Your task to perform on an android device: turn off location history Image 0: 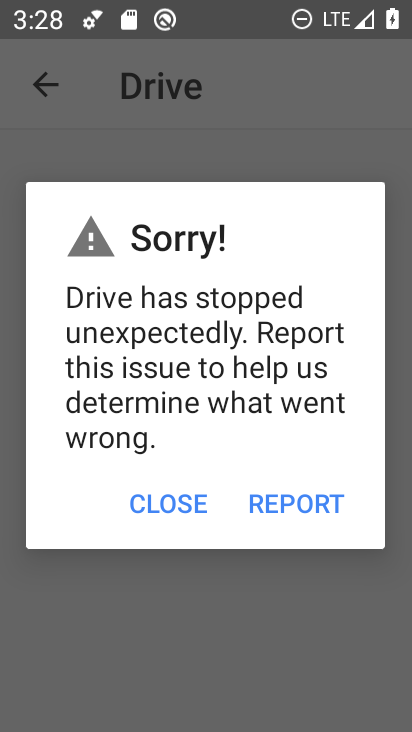
Step 0: press home button
Your task to perform on an android device: turn off location history Image 1: 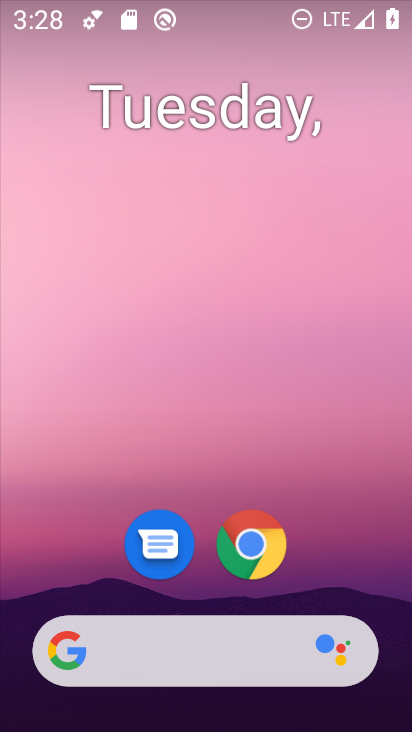
Step 1: drag from (374, 569) to (371, 129)
Your task to perform on an android device: turn off location history Image 2: 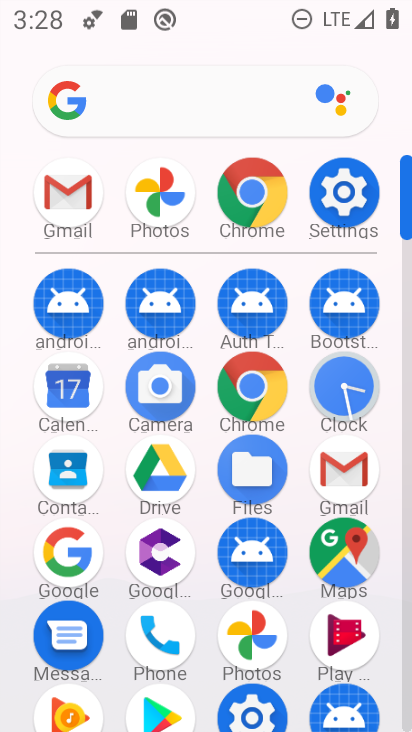
Step 2: click (353, 197)
Your task to perform on an android device: turn off location history Image 3: 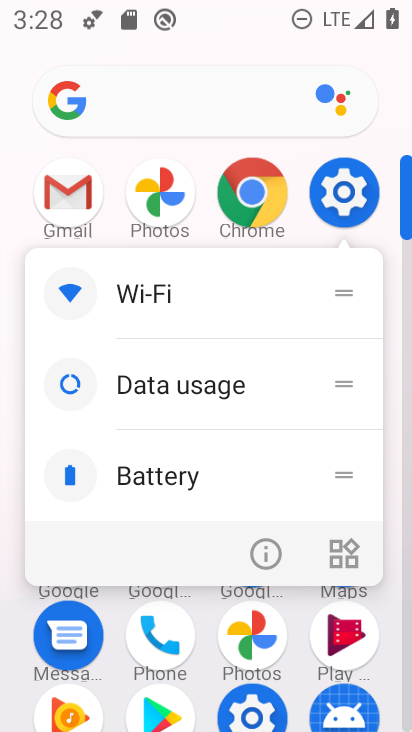
Step 3: click (364, 192)
Your task to perform on an android device: turn off location history Image 4: 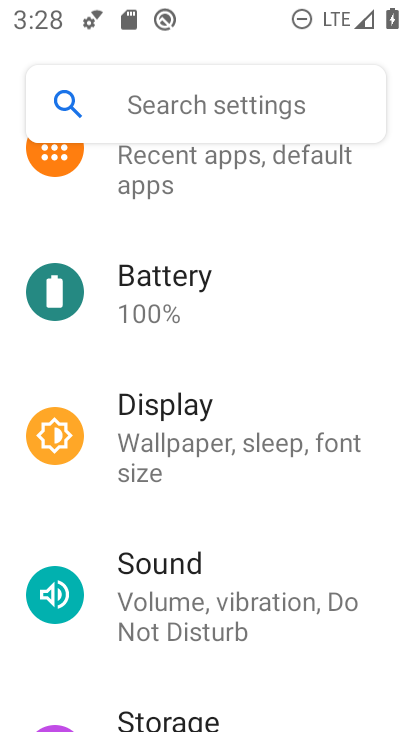
Step 4: drag from (364, 325) to (368, 465)
Your task to perform on an android device: turn off location history Image 5: 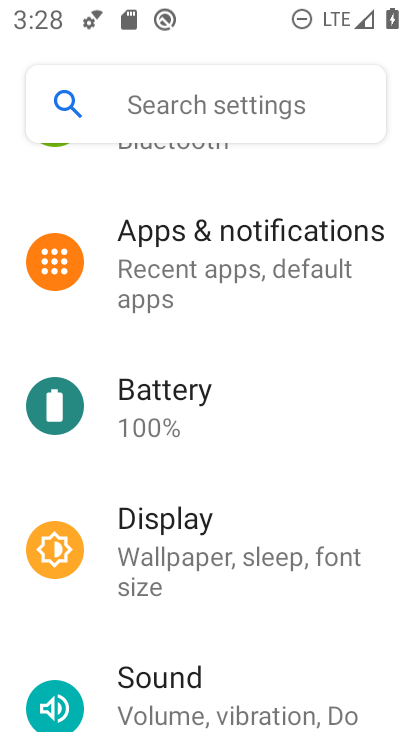
Step 5: drag from (381, 291) to (378, 425)
Your task to perform on an android device: turn off location history Image 6: 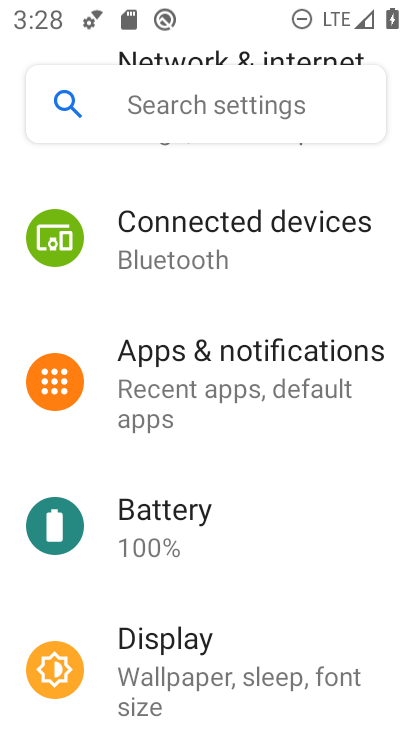
Step 6: drag from (389, 260) to (367, 434)
Your task to perform on an android device: turn off location history Image 7: 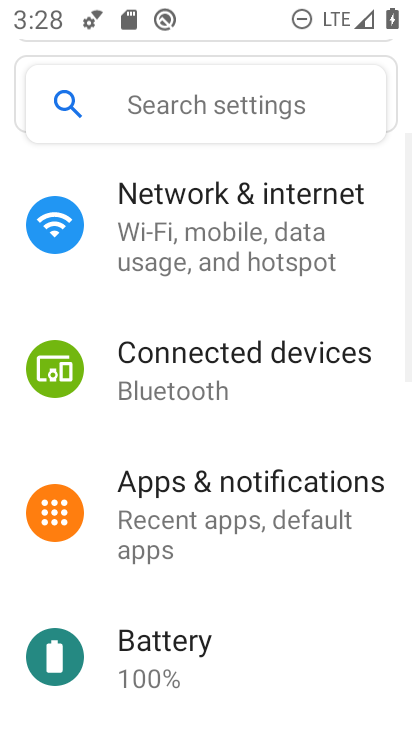
Step 7: drag from (362, 426) to (361, 289)
Your task to perform on an android device: turn off location history Image 8: 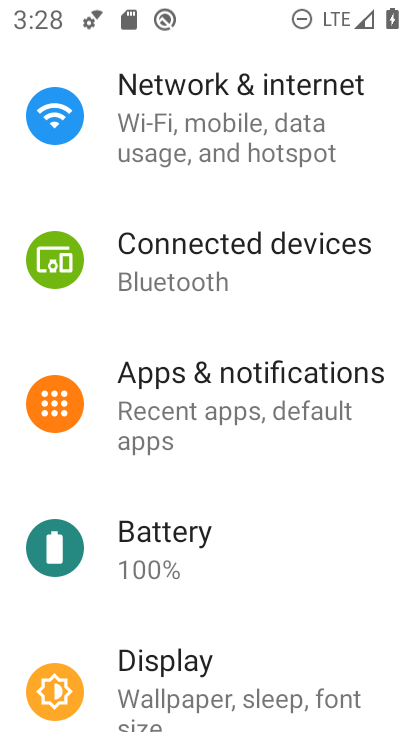
Step 8: drag from (358, 472) to (364, 365)
Your task to perform on an android device: turn off location history Image 9: 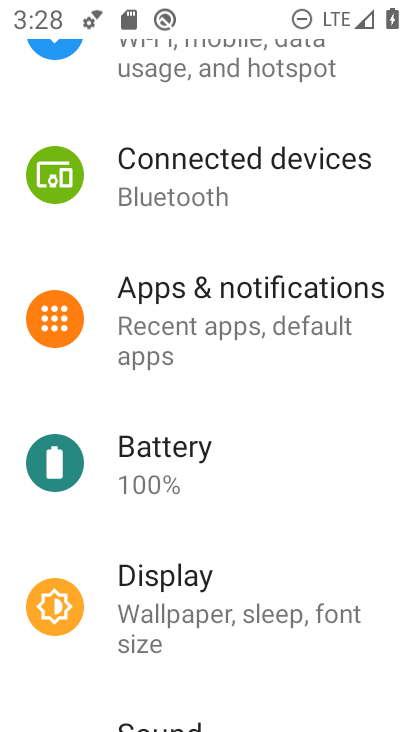
Step 9: drag from (358, 516) to (359, 405)
Your task to perform on an android device: turn off location history Image 10: 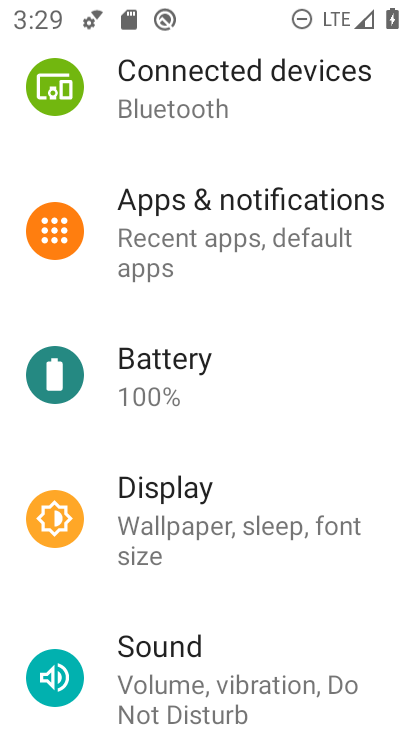
Step 10: drag from (349, 596) to (364, 457)
Your task to perform on an android device: turn off location history Image 11: 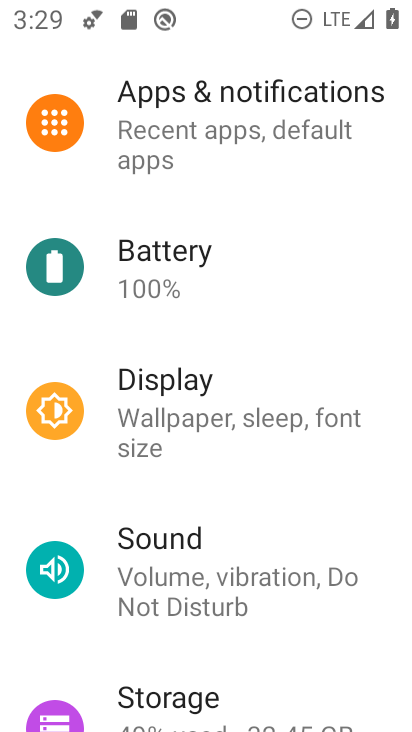
Step 11: drag from (340, 612) to (363, 484)
Your task to perform on an android device: turn off location history Image 12: 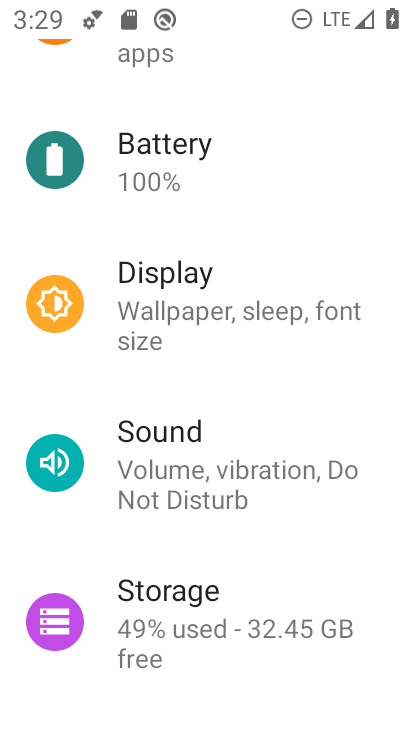
Step 12: drag from (363, 582) to (364, 478)
Your task to perform on an android device: turn off location history Image 13: 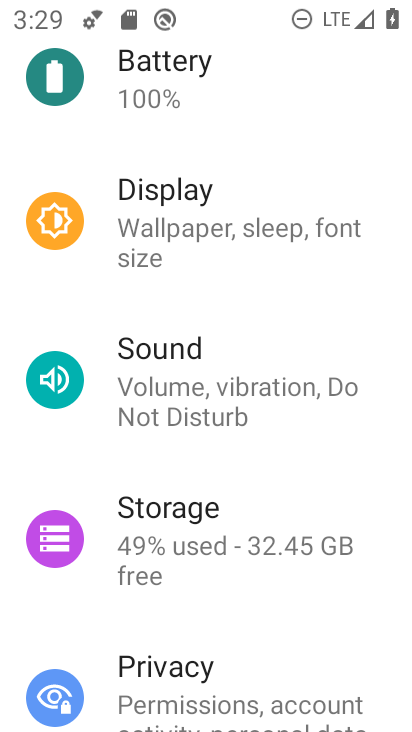
Step 13: drag from (346, 611) to (359, 495)
Your task to perform on an android device: turn off location history Image 14: 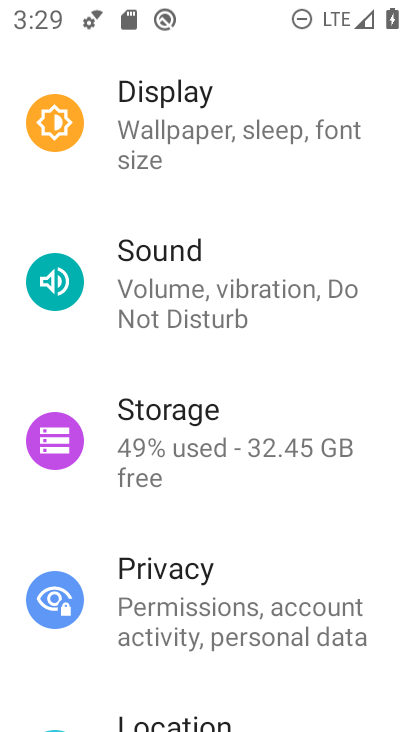
Step 14: drag from (367, 635) to (371, 521)
Your task to perform on an android device: turn off location history Image 15: 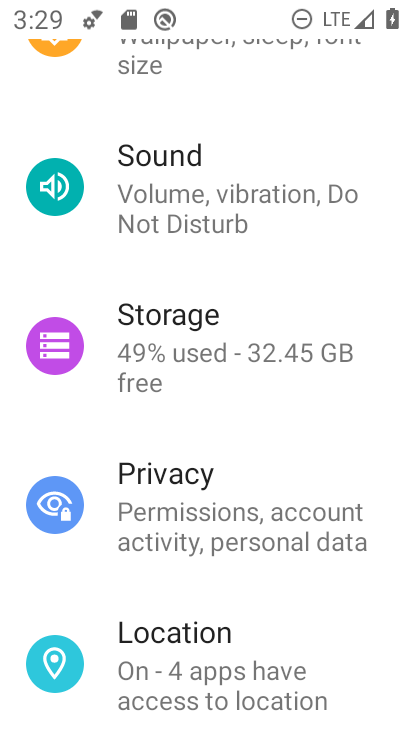
Step 15: drag from (355, 637) to (376, 528)
Your task to perform on an android device: turn off location history Image 16: 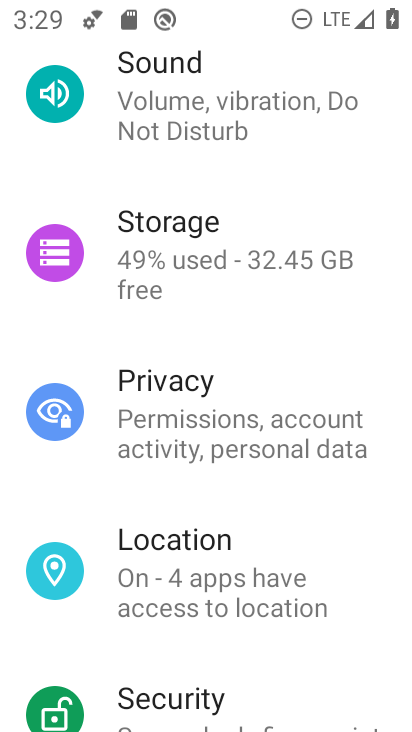
Step 16: drag from (355, 642) to (368, 553)
Your task to perform on an android device: turn off location history Image 17: 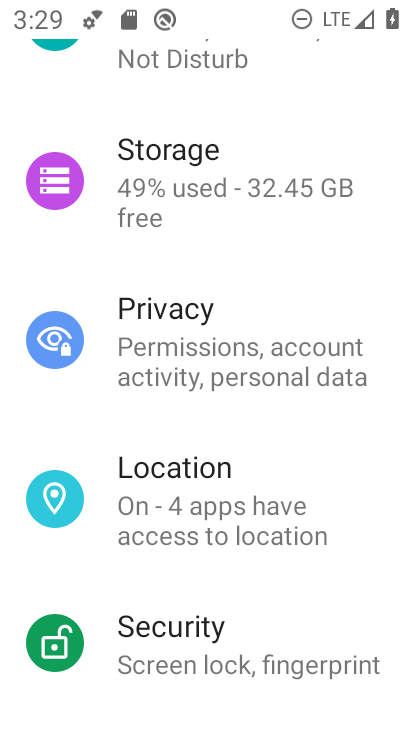
Step 17: click (263, 491)
Your task to perform on an android device: turn off location history Image 18: 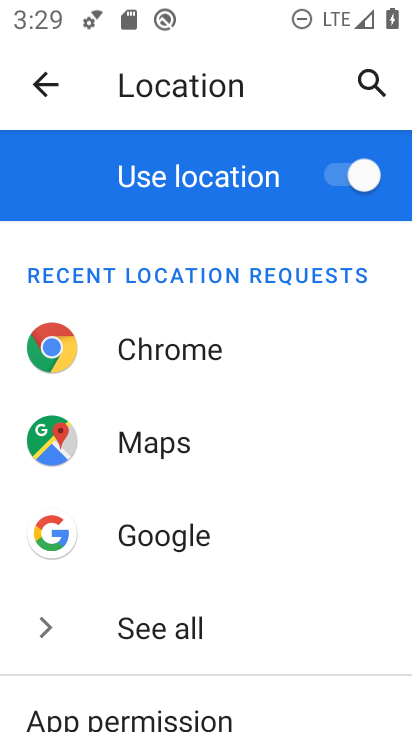
Step 18: drag from (301, 621) to (298, 545)
Your task to perform on an android device: turn off location history Image 19: 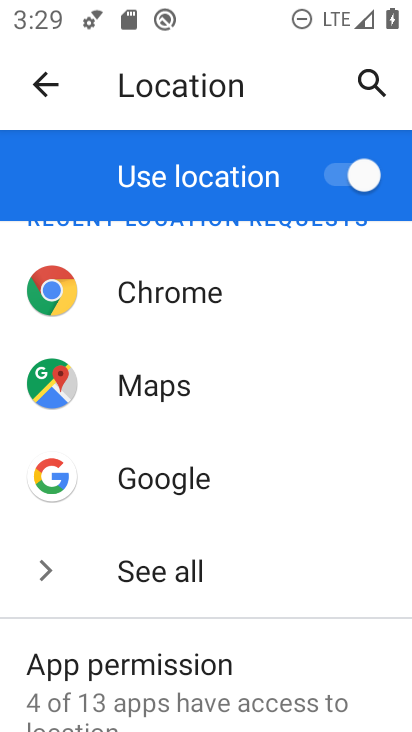
Step 19: drag from (295, 642) to (316, 493)
Your task to perform on an android device: turn off location history Image 20: 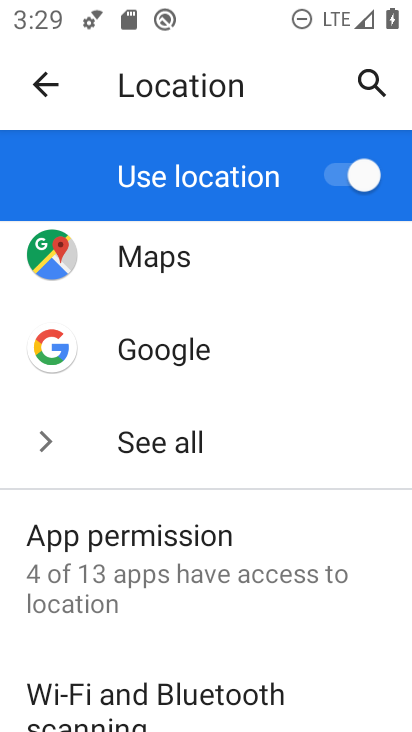
Step 20: drag from (297, 642) to (319, 531)
Your task to perform on an android device: turn off location history Image 21: 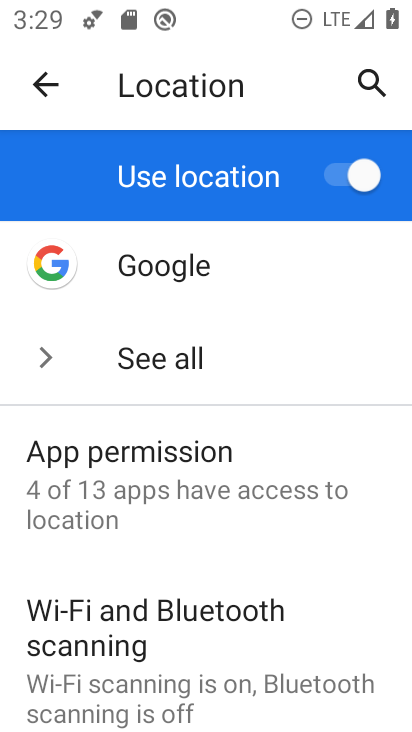
Step 21: drag from (336, 640) to (335, 534)
Your task to perform on an android device: turn off location history Image 22: 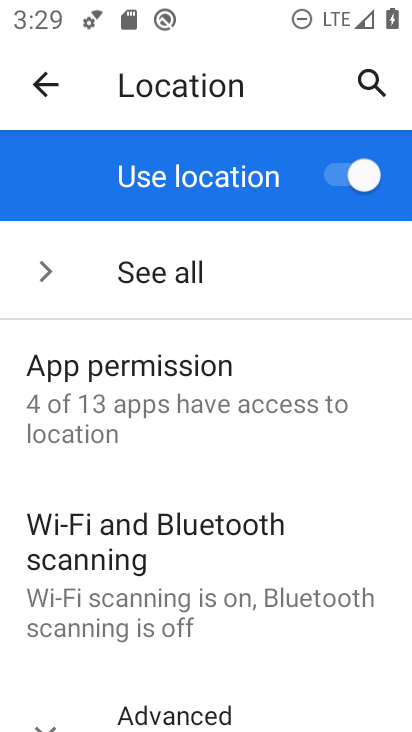
Step 22: drag from (332, 658) to (325, 528)
Your task to perform on an android device: turn off location history Image 23: 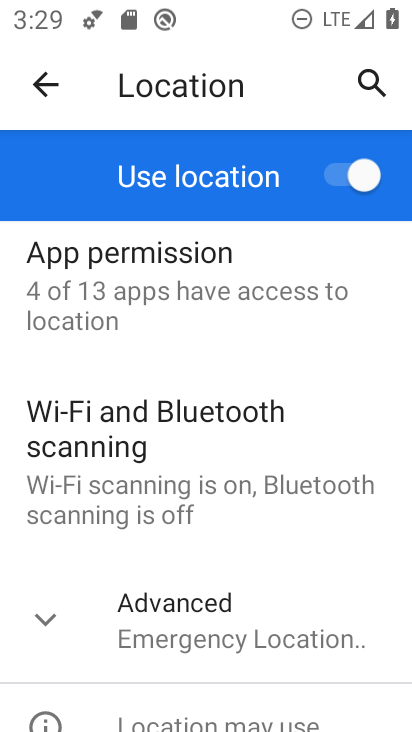
Step 23: drag from (297, 662) to (309, 525)
Your task to perform on an android device: turn off location history Image 24: 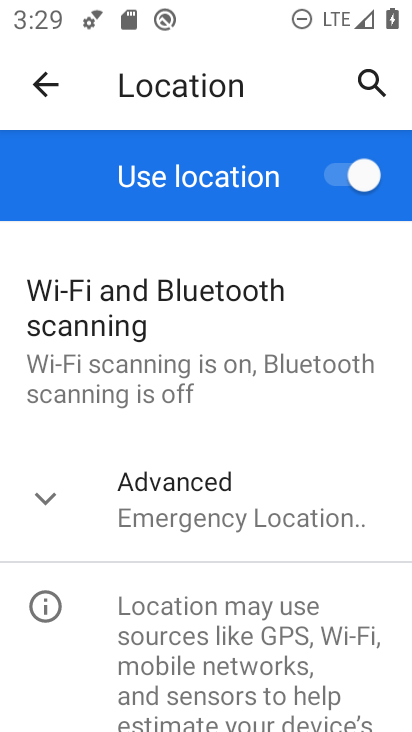
Step 24: click (229, 503)
Your task to perform on an android device: turn off location history Image 25: 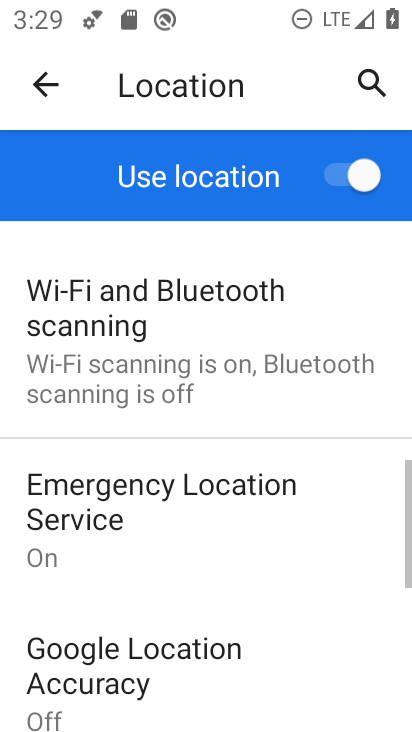
Step 25: drag from (293, 652) to (298, 509)
Your task to perform on an android device: turn off location history Image 26: 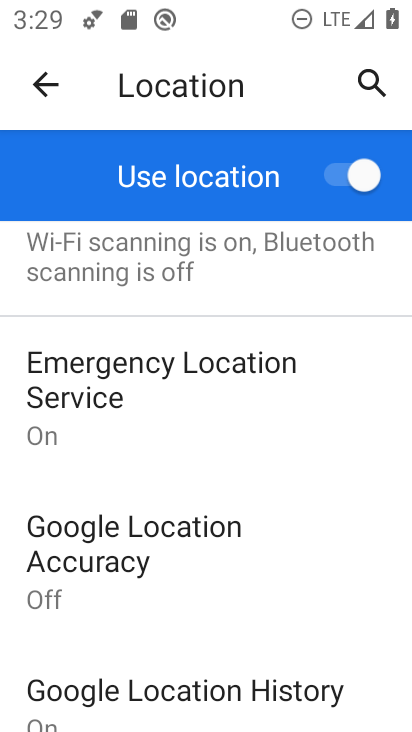
Step 26: drag from (294, 633) to (293, 497)
Your task to perform on an android device: turn off location history Image 27: 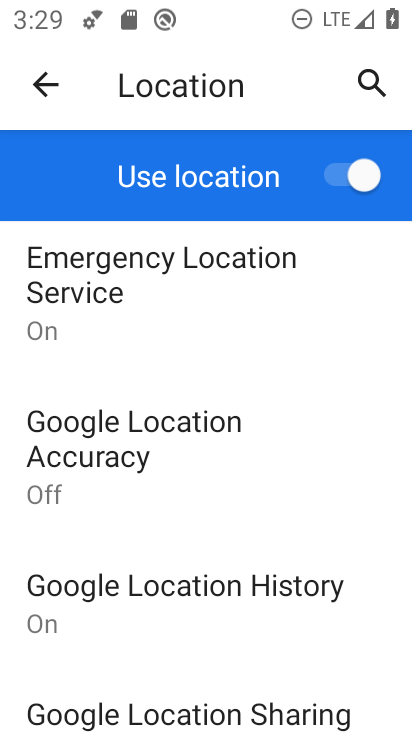
Step 27: drag from (296, 663) to (300, 537)
Your task to perform on an android device: turn off location history Image 28: 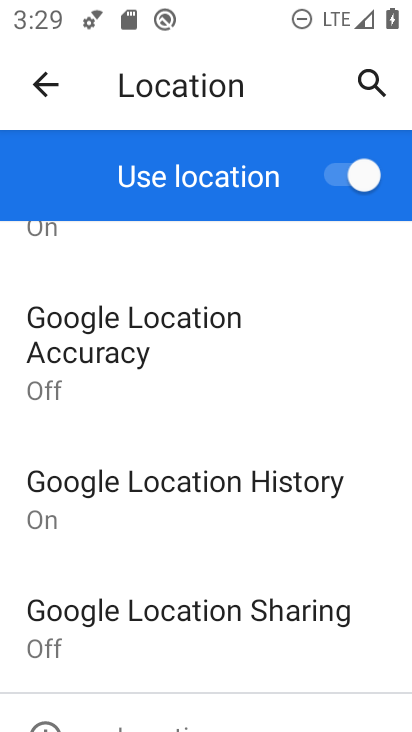
Step 28: click (218, 485)
Your task to perform on an android device: turn off location history Image 29: 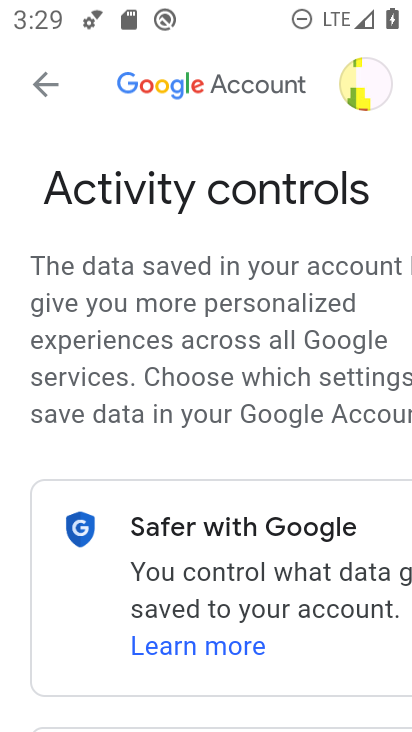
Step 29: drag from (248, 552) to (254, 461)
Your task to perform on an android device: turn off location history Image 30: 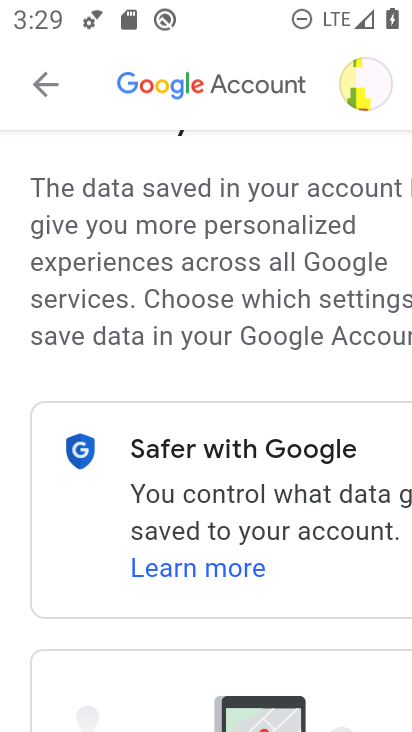
Step 30: drag from (256, 587) to (259, 414)
Your task to perform on an android device: turn off location history Image 31: 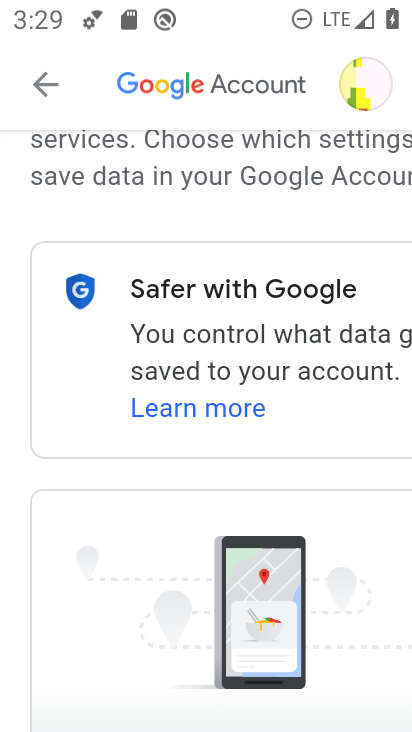
Step 31: drag from (177, 599) to (169, 439)
Your task to perform on an android device: turn off location history Image 32: 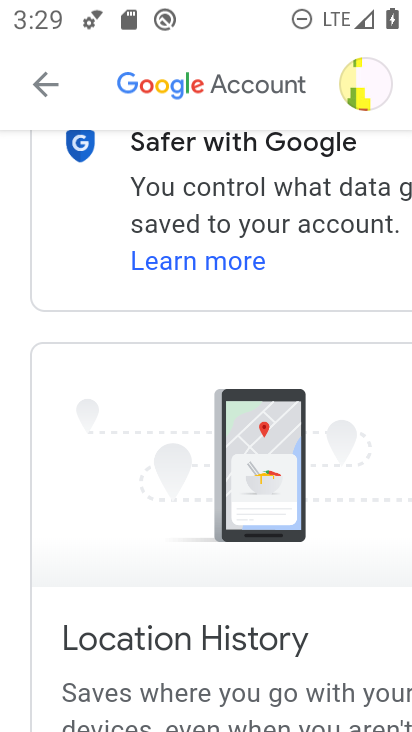
Step 32: drag from (159, 598) to (155, 470)
Your task to perform on an android device: turn off location history Image 33: 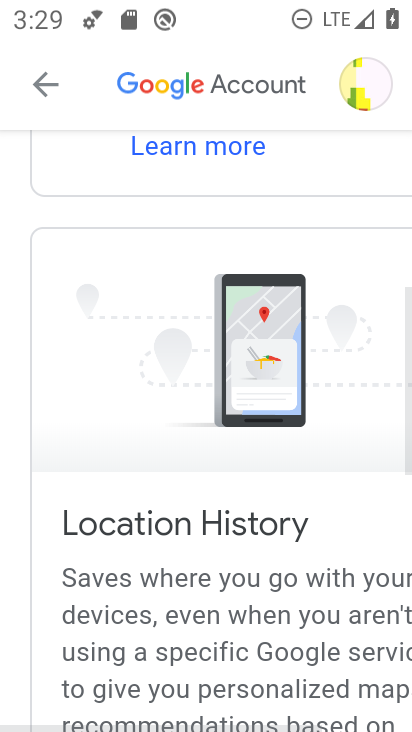
Step 33: drag from (150, 639) to (164, 511)
Your task to perform on an android device: turn off location history Image 34: 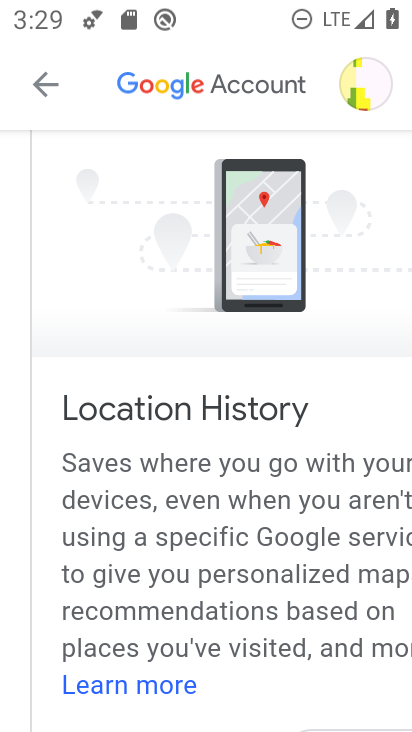
Step 34: drag from (189, 634) to (199, 511)
Your task to perform on an android device: turn off location history Image 35: 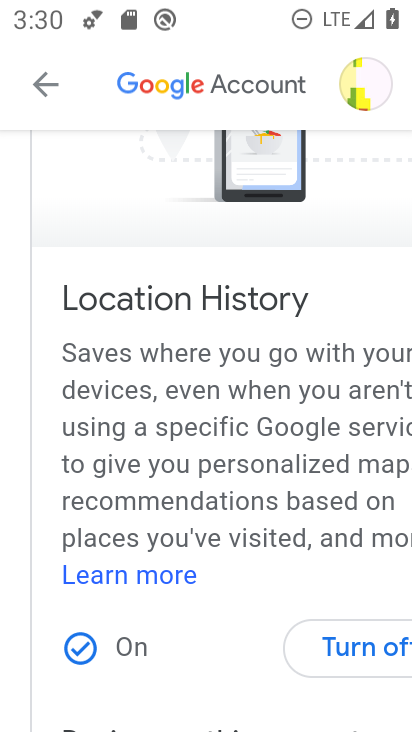
Step 35: click (355, 643)
Your task to perform on an android device: turn off location history Image 36: 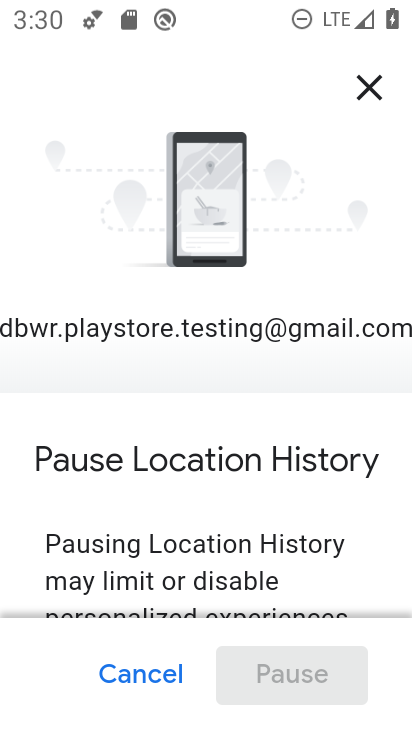
Step 36: drag from (224, 573) to (241, 460)
Your task to perform on an android device: turn off location history Image 37: 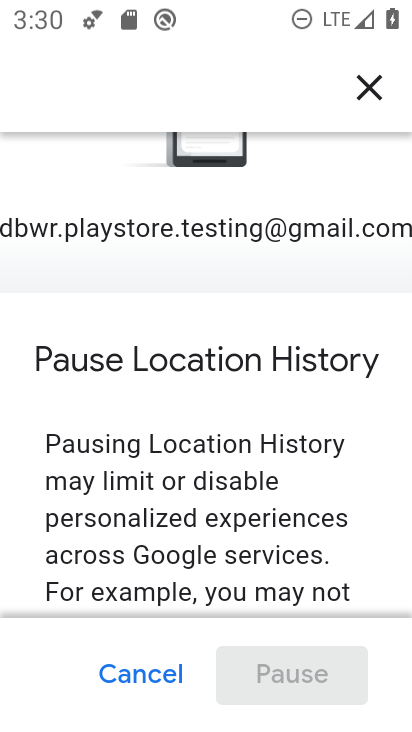
Step 37: drag from (219, 551) to (239, 404)
Your task to perform on an android device: turn off location history Image 38: 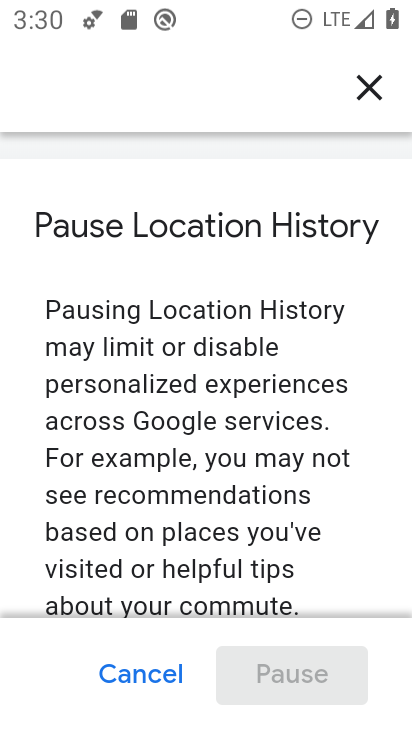
Step 38: drag from (235, 573) to (232, 442)
Your task to perform on an android device: turn off location history Image 39: 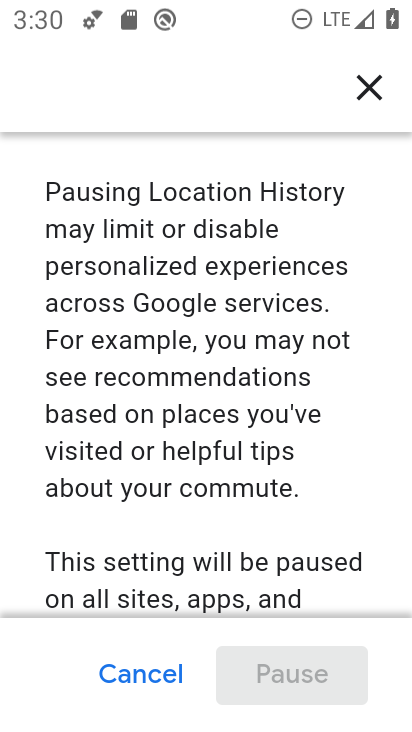
Step 39: drag from (245, 578) to (245, 437)
Your task to perform on an android device: turn off location history Image 40: 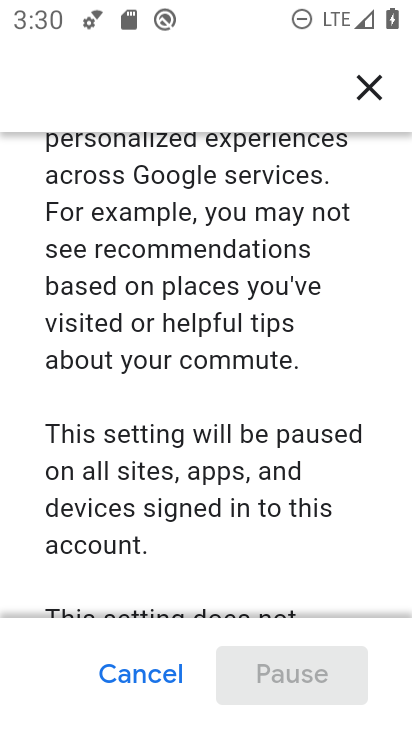
Step 40: drag from (226, 527) to (227, 465)
Your task to perform on an android device: turn off location history Image 41: 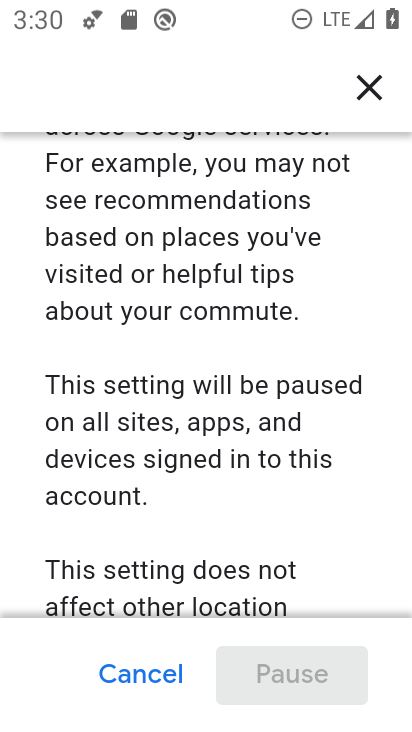
Step 41: drag from (207, 552) to (212, 447)
Your task to perform on an android device: turn off location history Image 42: 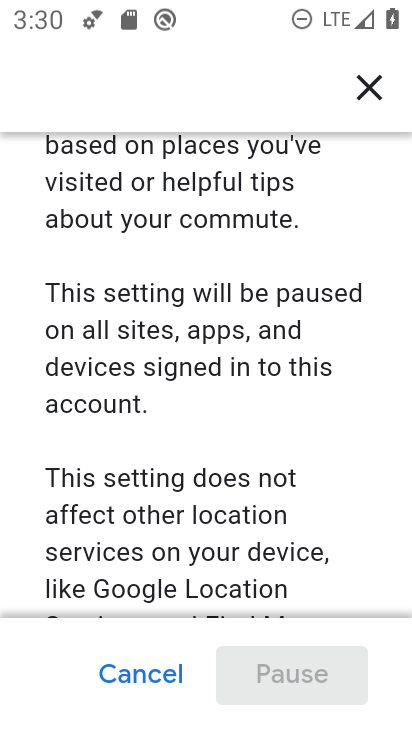
Step 42: drag from (207, 564) to (205, 469)
Your task to perform on an android device: turn off location history Image 43: 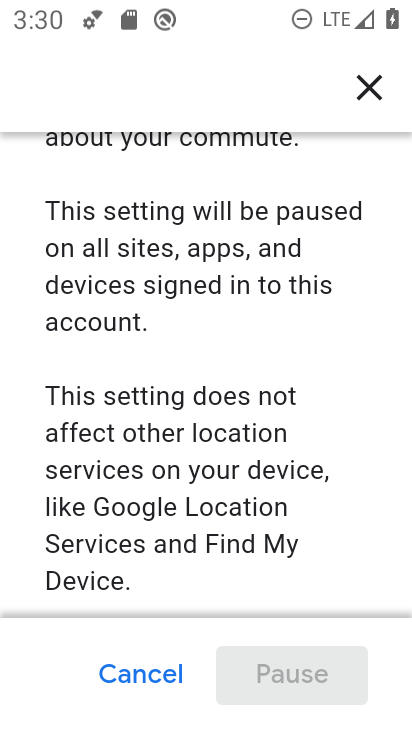
Step 43: drag from (198, 576) to (206, 477)
Your task to perform on an android device: turn off location history Image 44: 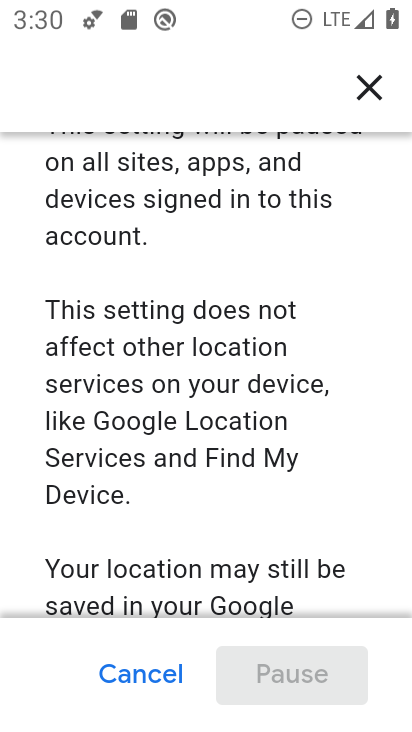
Step 44: drag from (223, 563) to (240, 470)
Your task to perform on an android device: turn off location history Image 45: 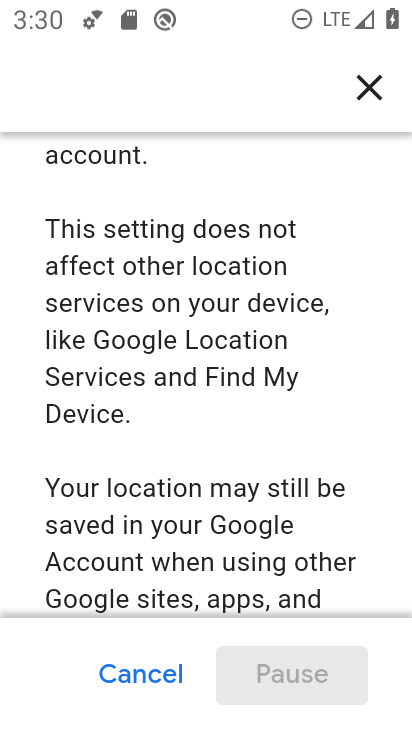
Step 45: drag from (235, 571) to (234, 459)
Your task to perform on an android device: turn off location history Image 46: 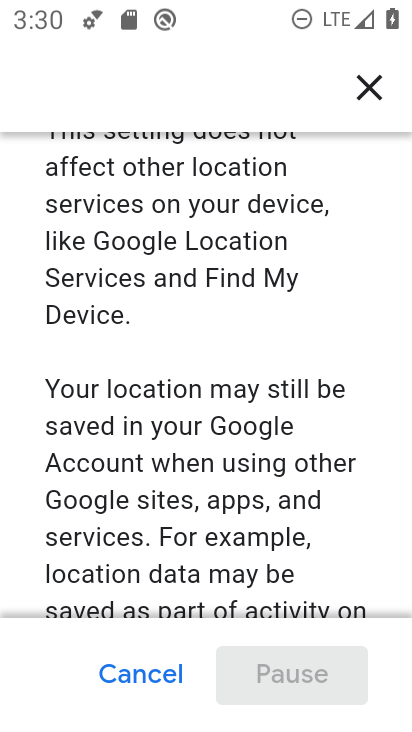
Step 46: drag from (388, 525) to (376, 427)
Your task to perform on an android device: turn off location history Image 47: 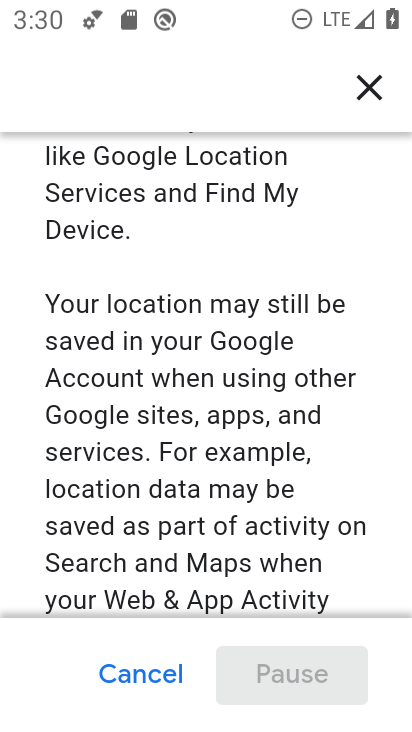
Step 47: drag from (372, 501) to (373, 378)
Your task to perform on an android device: turn off location history Image 48: 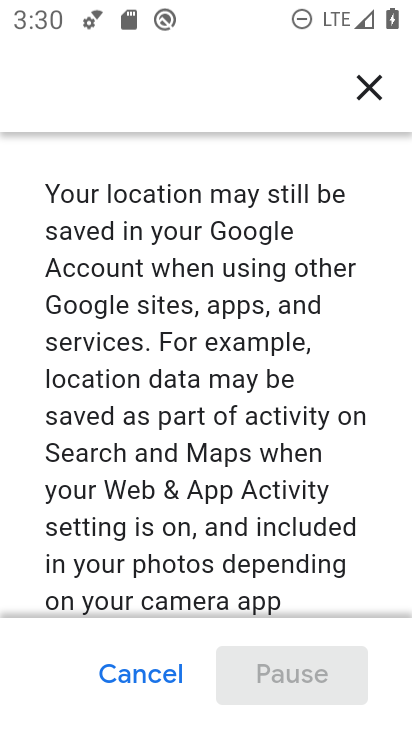
Step 48: drag from (385, 489) to (376, 387)
Your task to perform on an android device: turn off location history Image 49: 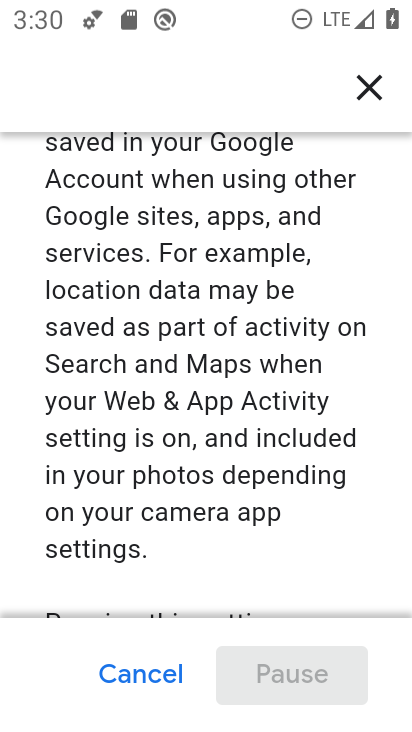
Step 49: drag from (373, 551) to (365, 436)
Your task to perform on an android device: turn off location history Image 50: 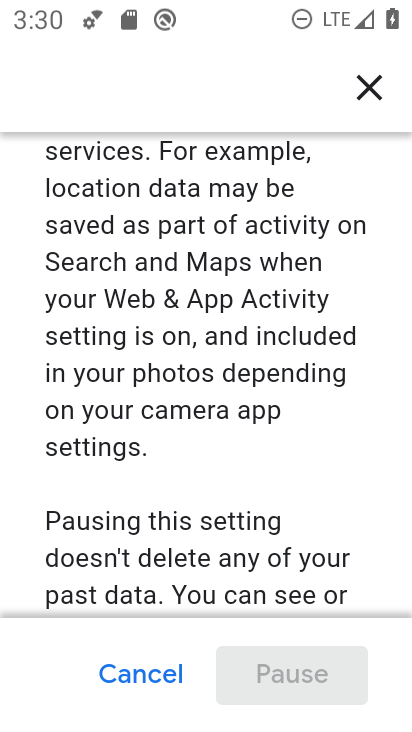
Step 50: drag from (353, 540) to (356, 431)
Your task to perform on an android device: turn off location history Image 51: 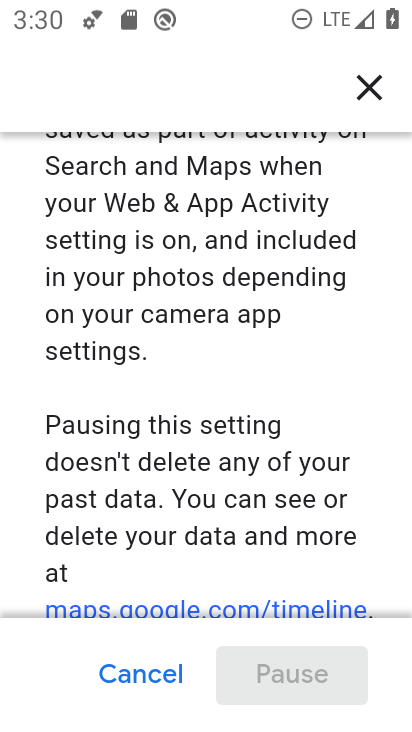
Step 51: drag from (340, 567) to (348, 430)
Your task to perform on an android device: turn off location history Image 52: 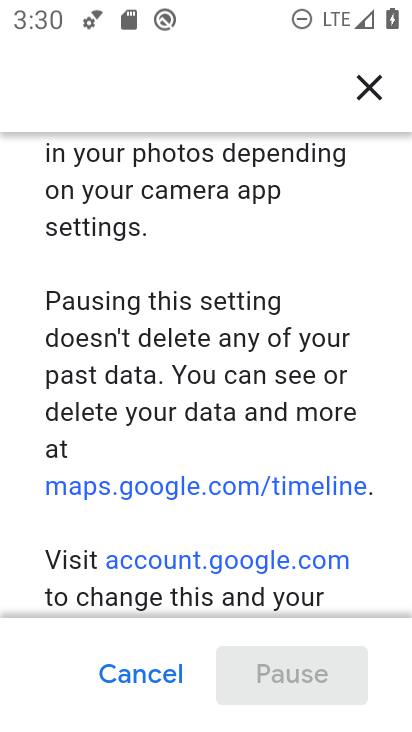
Step 52: drag from (349, 581) to (365, 424)
Your task to perform on an android device: turn off location history Image 53: 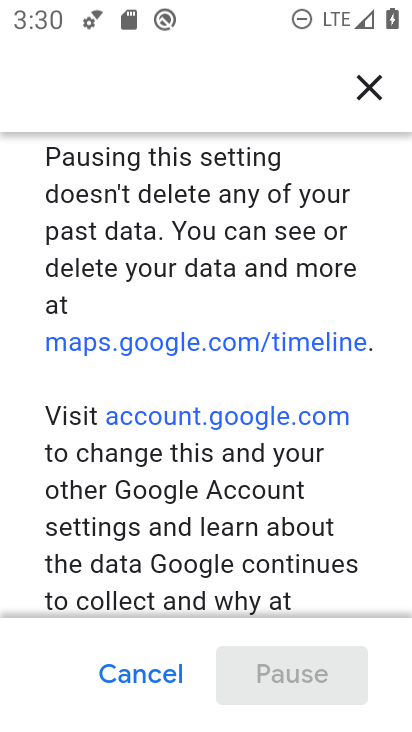
Step 53: drag from (367, 550) to (362, 360)
Your task to perform on an android device: turn off location history Image 54: 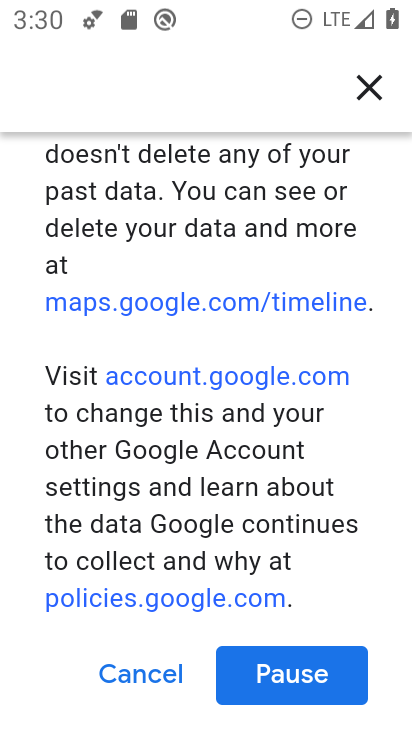
Step 54: click (310, 673)
Your task to perform on an android device: turn off location history Image 55: 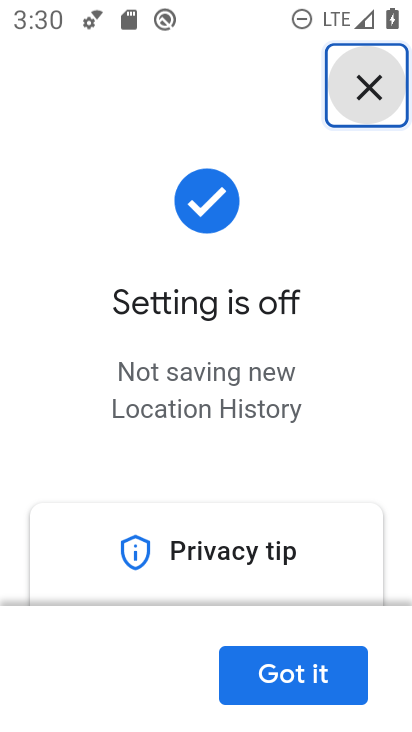
Step 55: task complete